Your task to perform on an android device: turn on notifications settings in the gmail app Image 0: 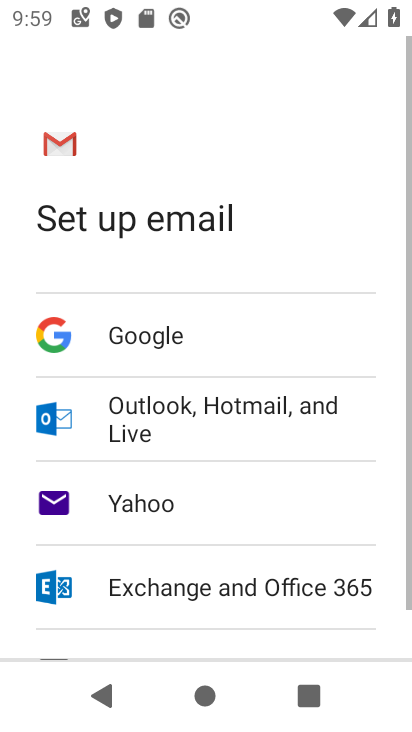
Step 0: press home button
Your task to perform on an android device: turn on notifications settings in the gmail app Image 1: 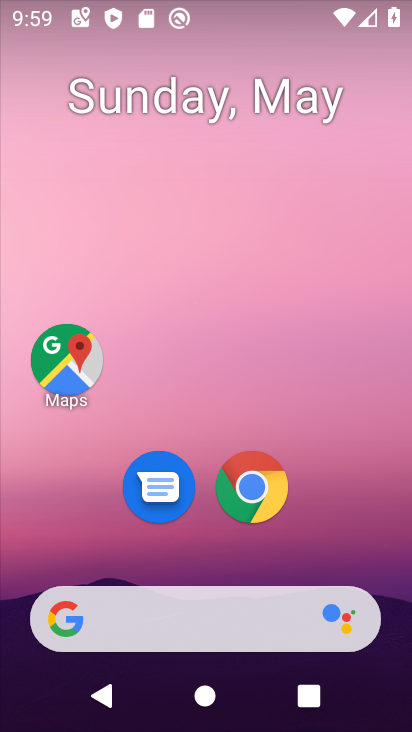
Step 1: drag from (382, 565) to (364, 147)
Your task to perform on an android device: turn on notifications settings in the gmail app Image 2: 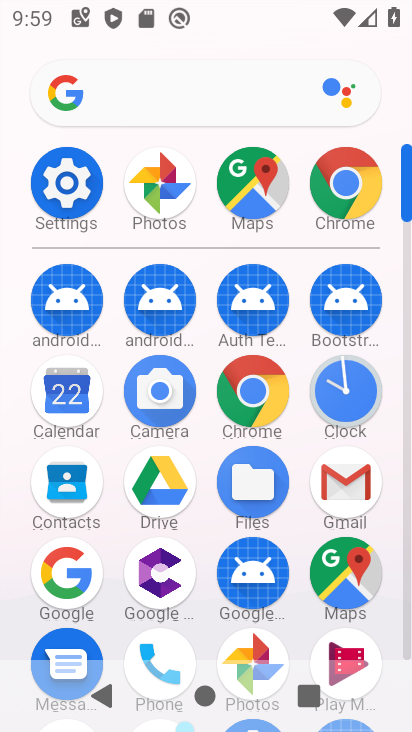
Step 2: click (367, 481)
Your task to perform on an android device: turn on notifications settings in the gmail app Image 3: 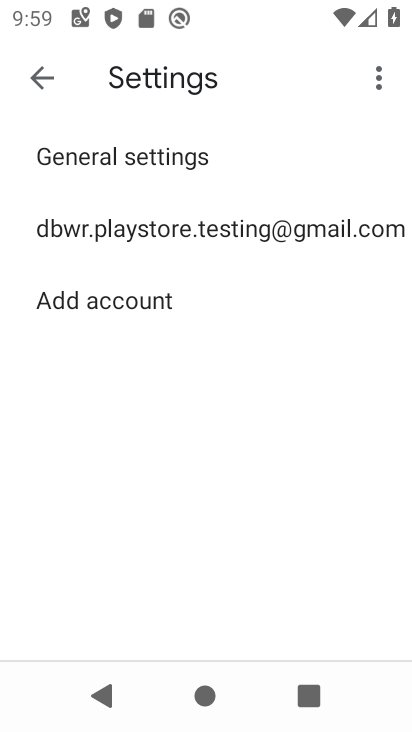
Step 3: click (220, 232)
Your task to perform on an android device: turn on notifications settings in the gmail app Image 4: 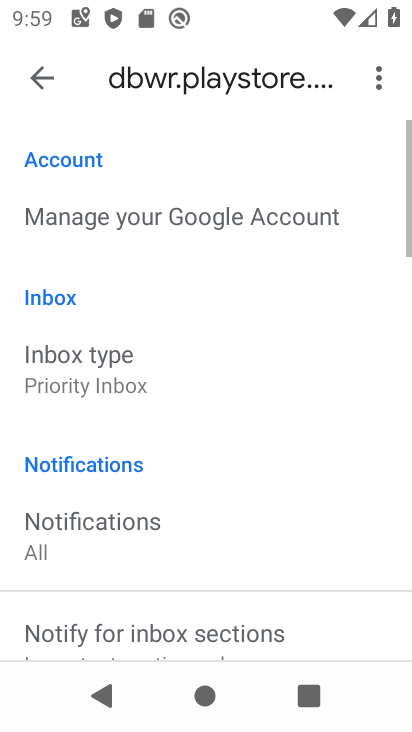
Step 4: drag from (276, 533) to (280, 424)
Your task to perform on an android device: turn on notifications settings in the gmail app Image 5: 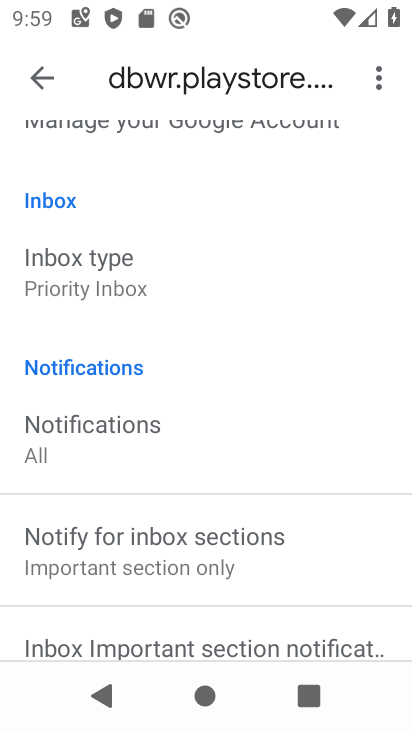
Step 5: drag from (311, 570) to (306, 421)
Your task to perform on an android device: turn on notifications settings in the gmail app Image 6: 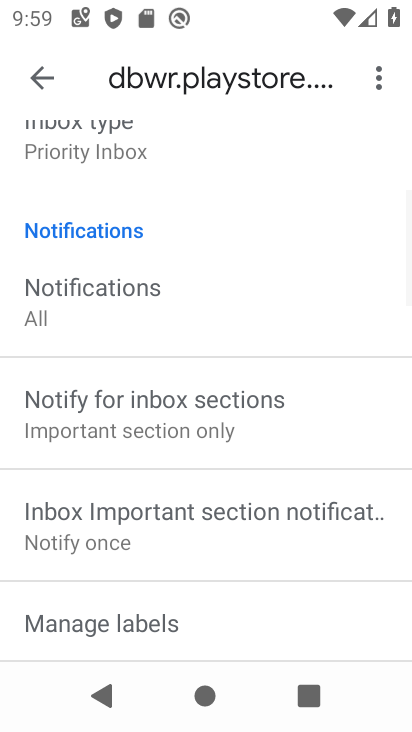
Step 6: drag from (292, 582) to (300, 457)
Your task to perform on an android device: turn on notifications settings in the gmail app Image 7: 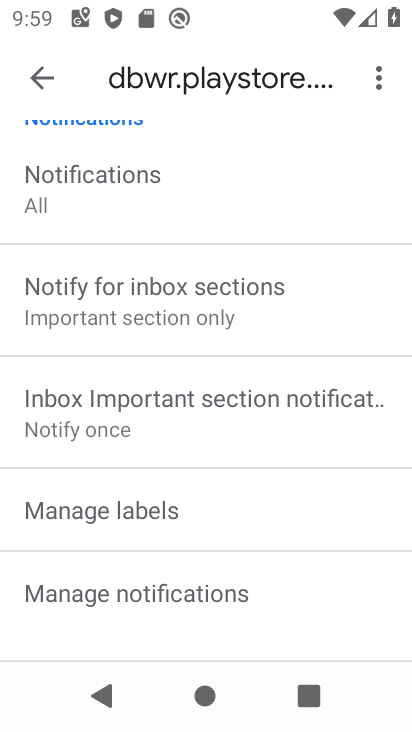
Step 7: drag from (311, 603) to (320, 492)
Your task to perform on an android device: turn on notifications settings in the gmail app Image 8: 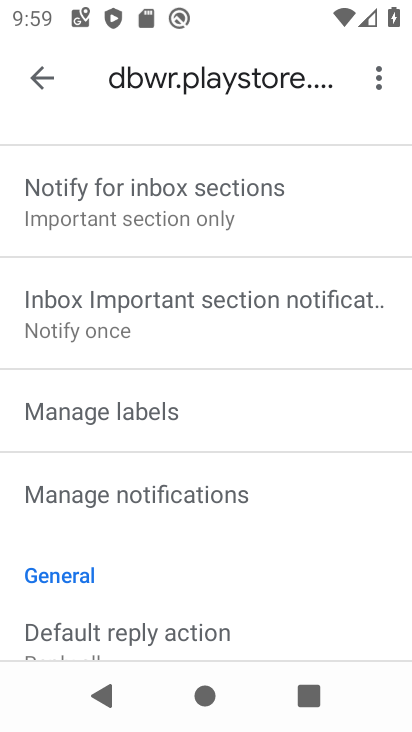
Step 8: drag from (324, 599) to (320, 498)
Your task to perform on an android device: turn on notifications settings in the gmail app Image 9: 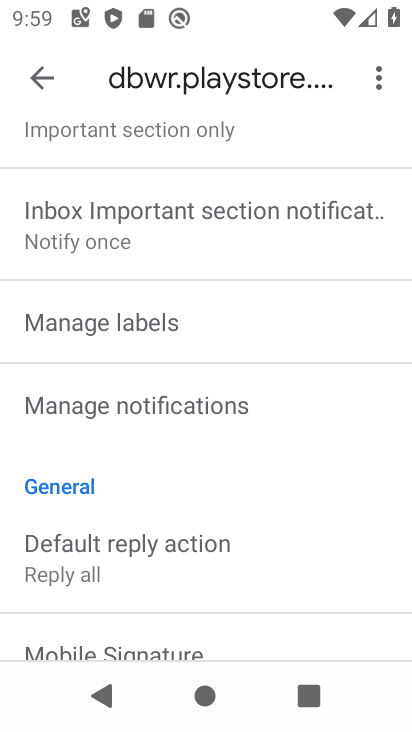
Step 9: drag from (311, 611) to (312, 509)
Your task to perform on an android device: turn on notifications settings in the gmail app Image 10: 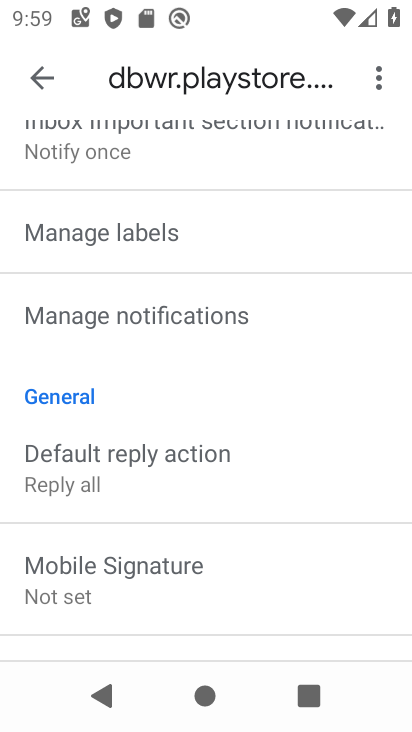
Step 10: drag from (328, 572) to (317, 462)
Your task to perform on an android device: turn on notifications settings in the gmail app Image 11: 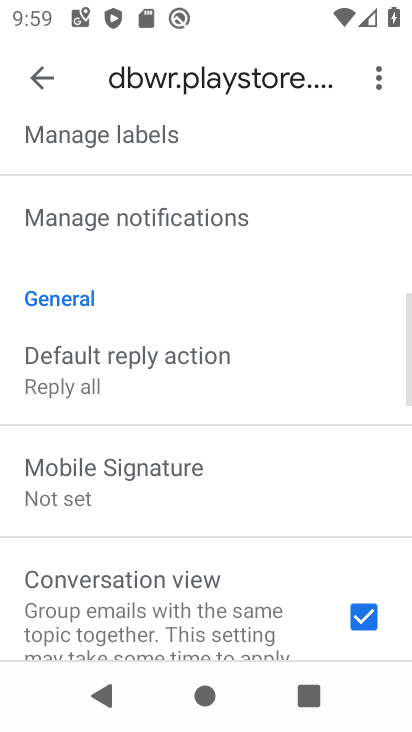
Step 11: drag from (324, 313) to (314, 445)
Your task to perform on an android device: turn on notifications settings in the gmail app Image 12: 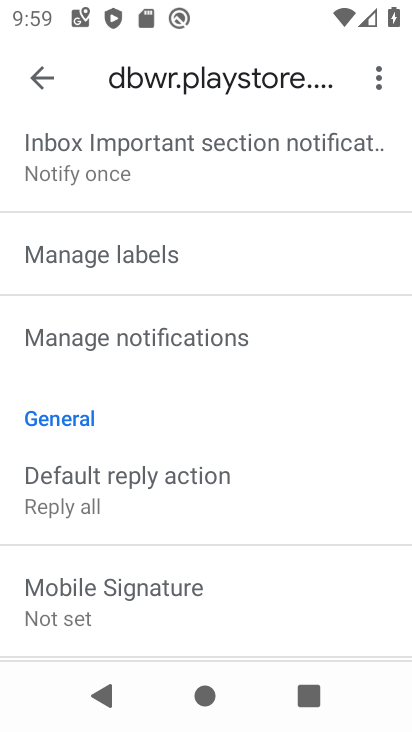
Step 12: click (248, 337)
Your task to perform on an android device: turn on notifications settings in the gmail app Image 13: 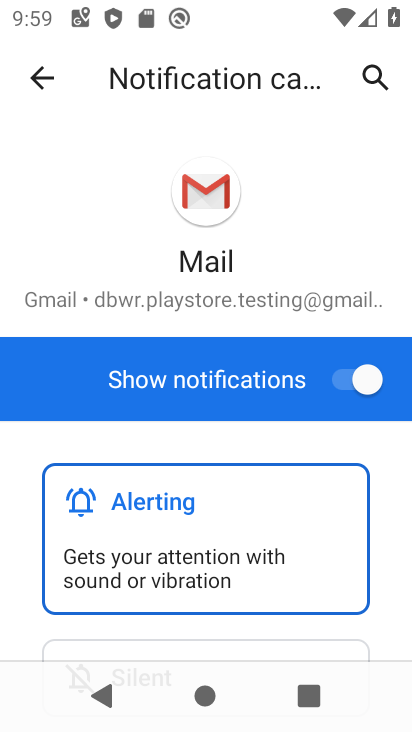
Step 13: task complete